Your task to perform on an android device: add a contact Image 0: 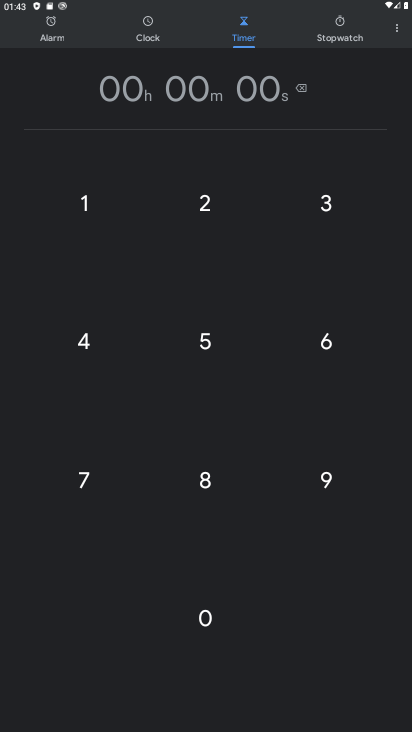
Step 0: press home button
Your task to perform on an android device: add a contact Image 1: 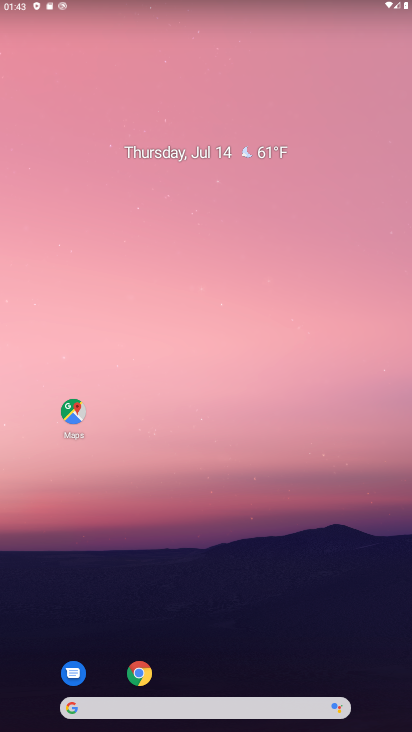
Step 1: task complete